Your task to perform on an android device: open wifi settings Image 0: 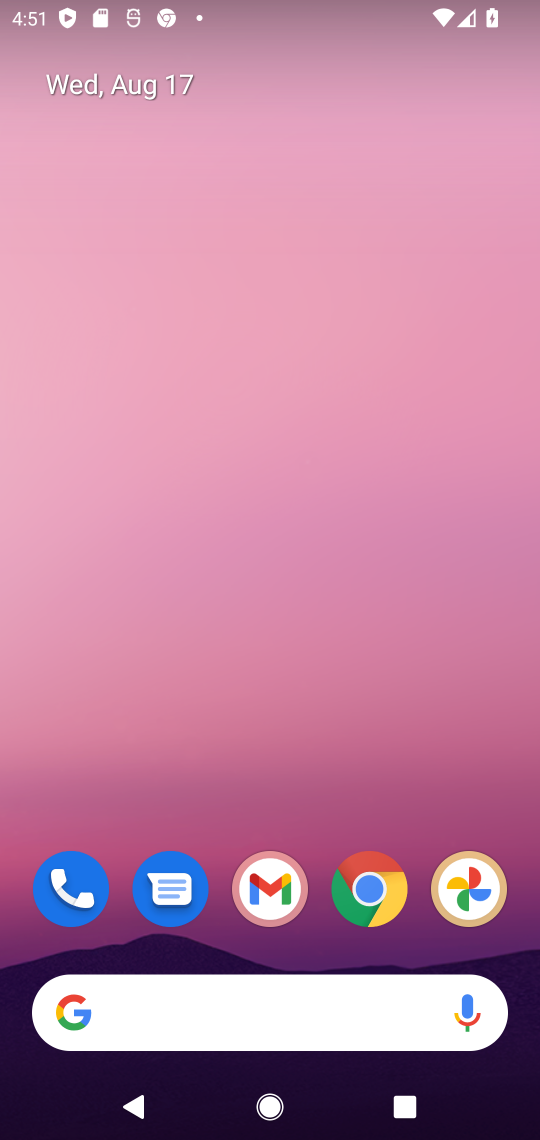
Step 0: drag from (331, 787) to (304, 38)
Your task to perform on an android device: open wifi settings Image 1: 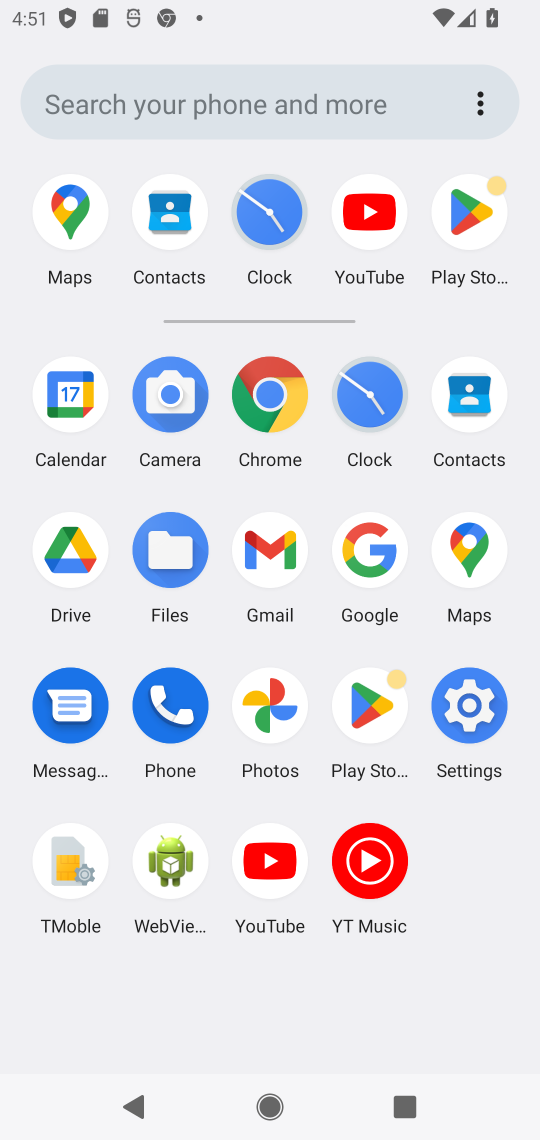
Step 1: click (465, 709)
Your task to perform on an android device: open wifi settings Image 2: 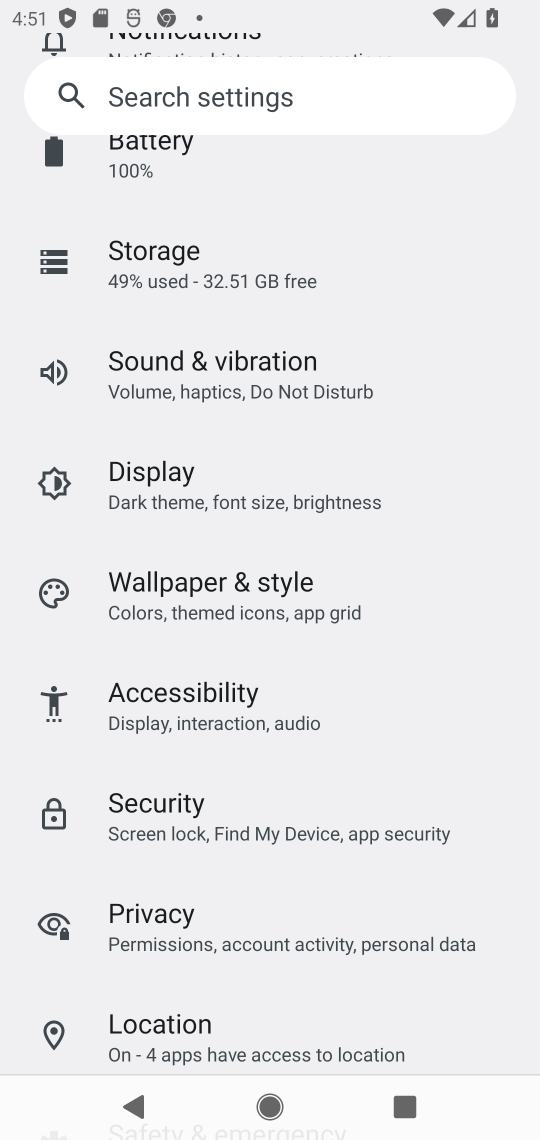
Step 2: drag from (314, 245) to (318, 923)
Your task to perform on an android device: open wifi settings Image 3: 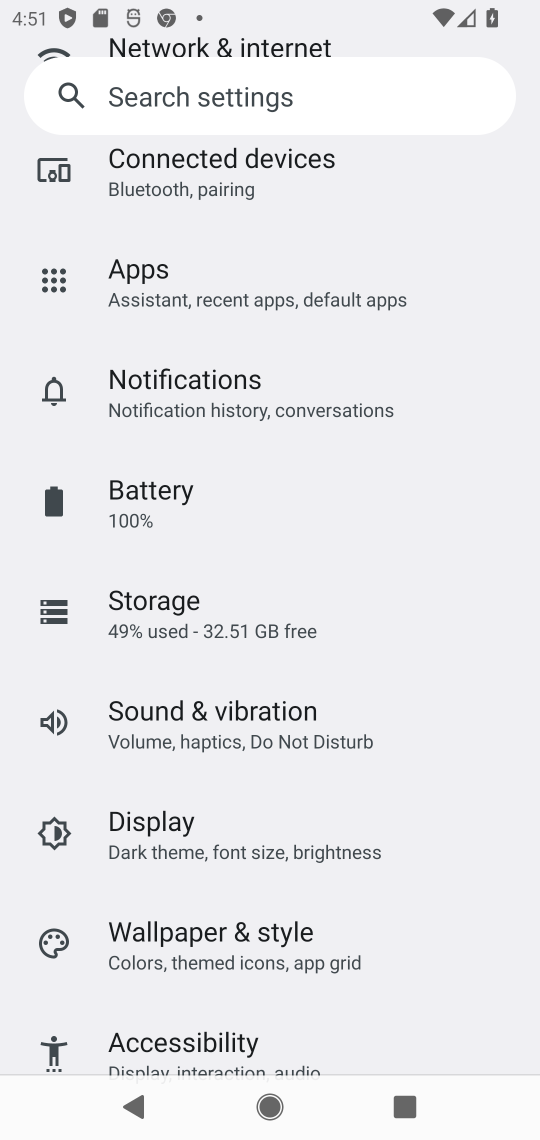
Step 3: drag from (317, 262) to (369, 811)
Your task to perform on an android device: open wifi settings Image 4: 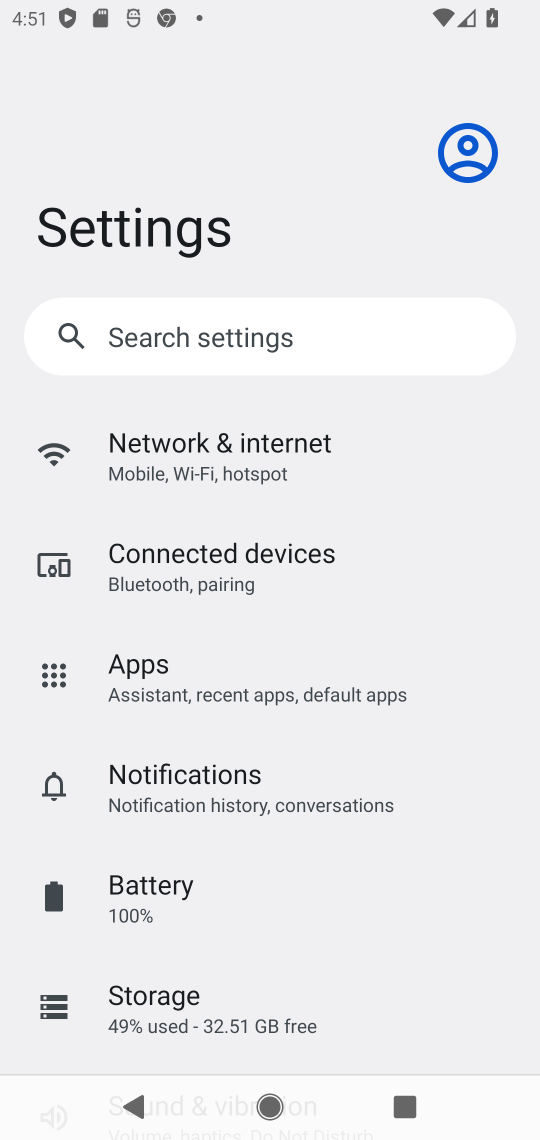
Step 4: click (238, 436)
Your task to perform on an android device: open wifi settings Image 5: 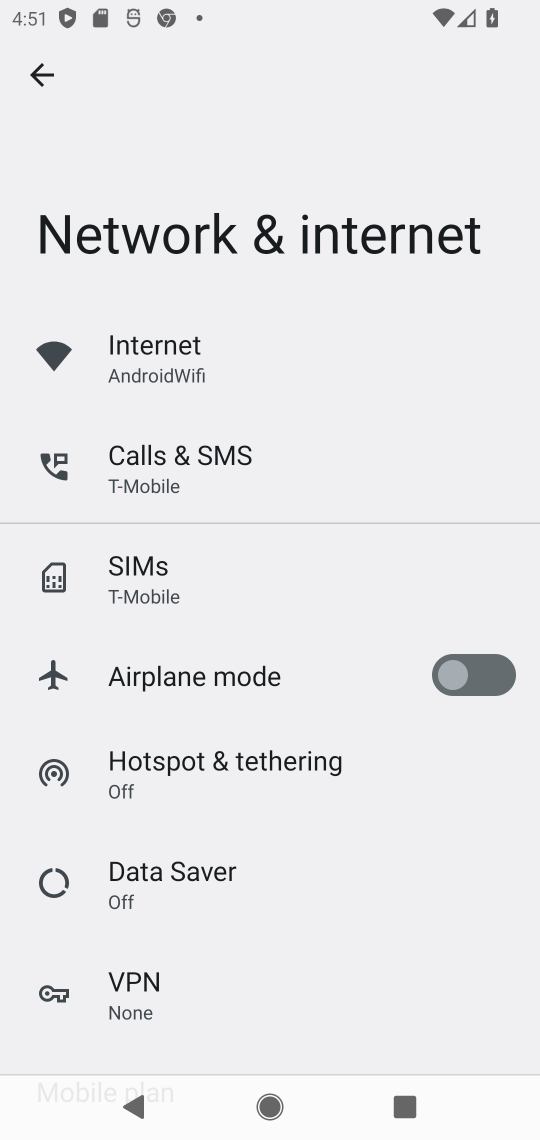
Step 5: click (162, 347)
Your task to perform on an android device: open wifi settings Image 6: 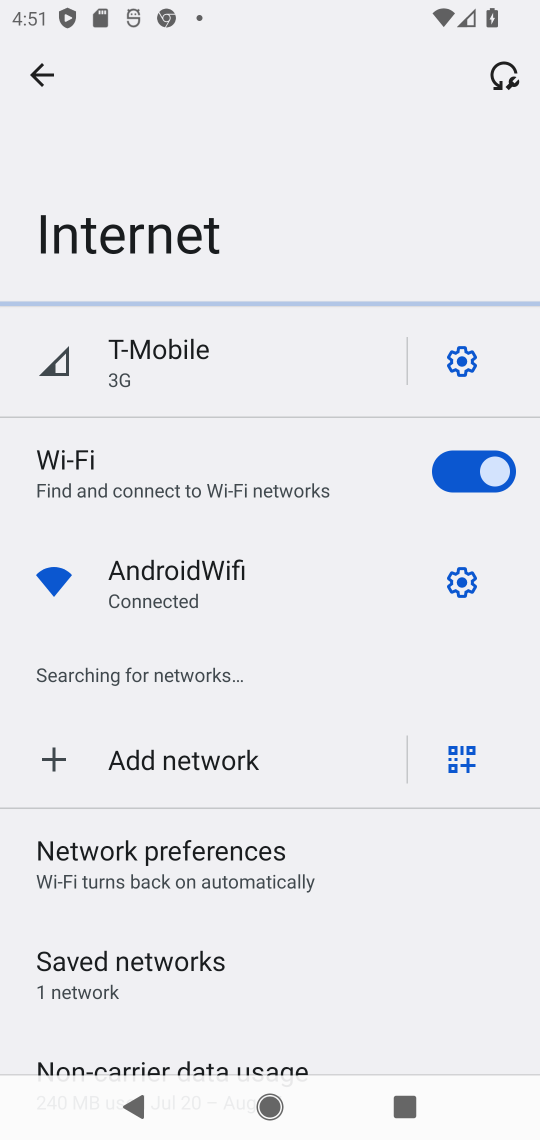
Step 6: task complete